Your task to perform on an android device: Open Amazon Image 0: 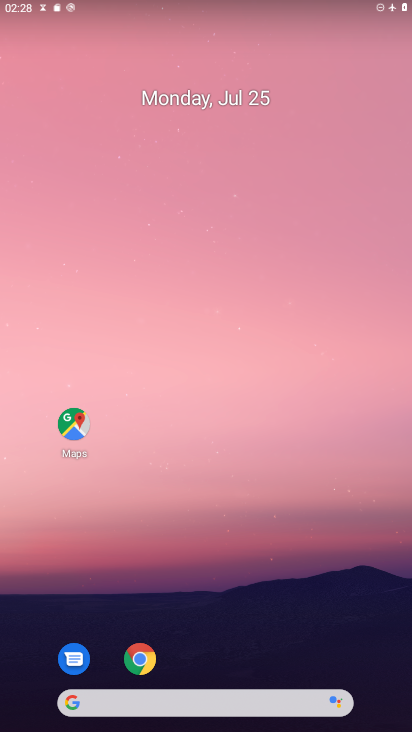
Step 0: click (142, 655)
Your task to perform on an android device: Open Amazon Image 1: 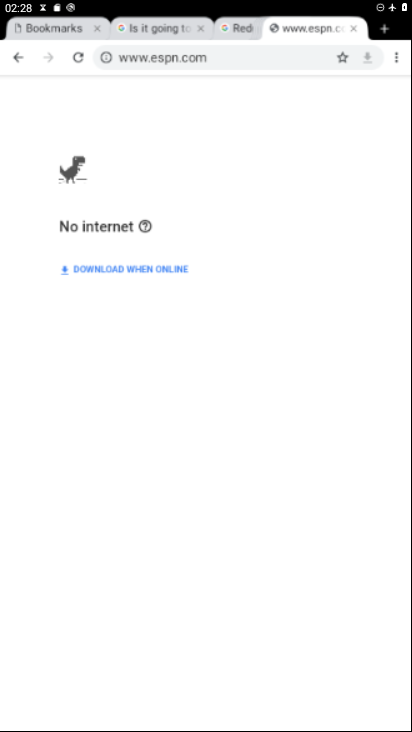
Step 1: click (146, 652)
Your task to perform on an android device: Open Amazon Image 2: 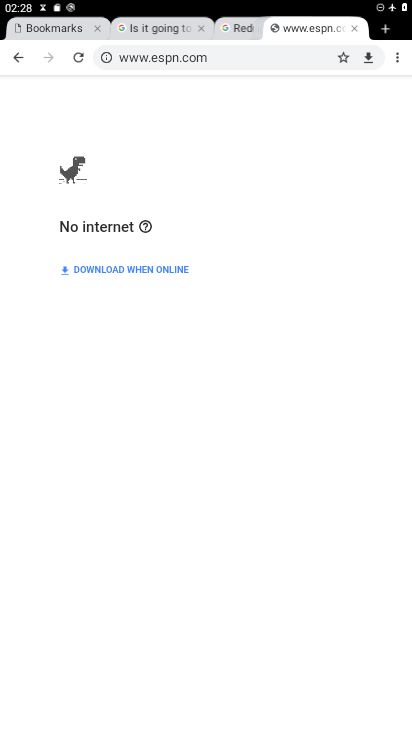
Step 2: click (387, 31)
Your task to perform on an android device: Open Amazon Image 3: 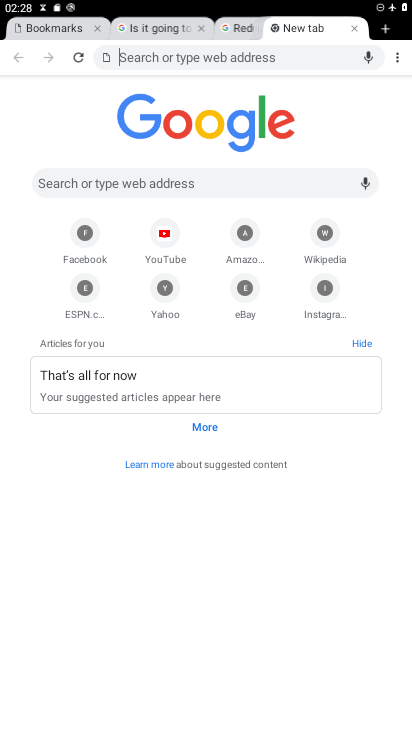
Step 3: click (238, 227)
Your task to perform on an android device: Open Amazon Image 4: 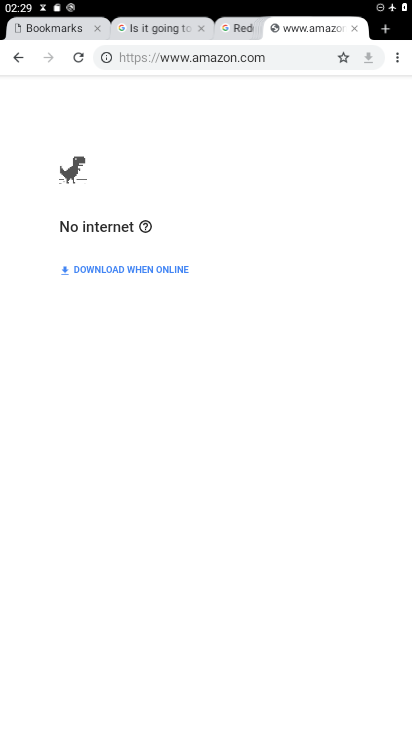
Step 4: task complete